Your task to perform on an android device: turn notification dots on Image 0: 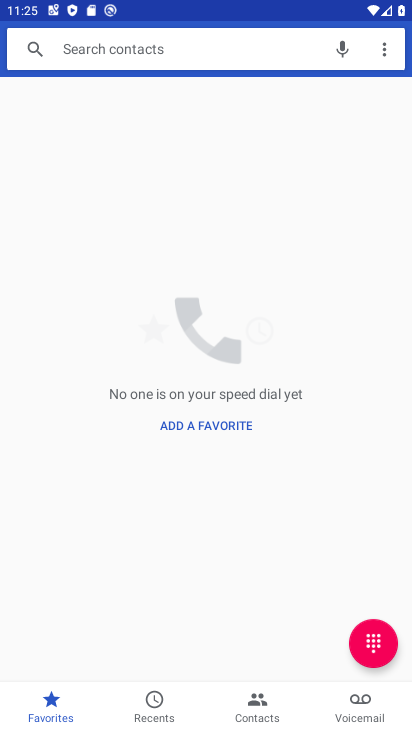
Step 0: press home button
Your task to perform on an android device: turn notification dots on Image 1: 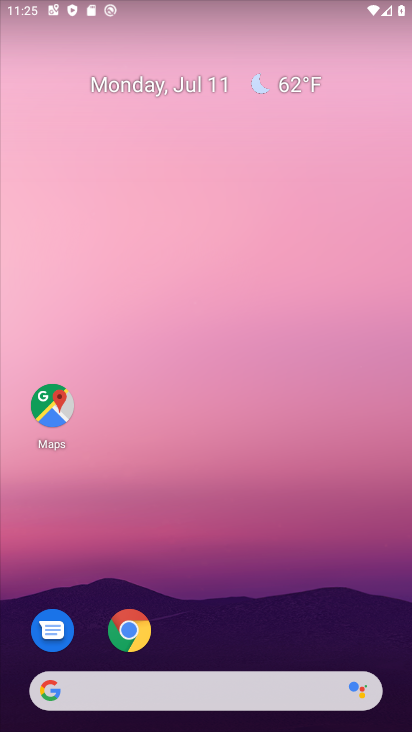
Step 1: drag from (224, 679) to (144, 27)
Your task to perform on an android device: turn notification dots on Image 2: 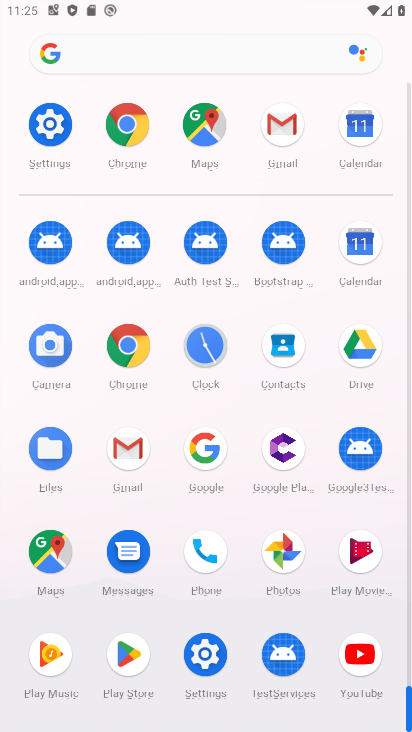
Step 2: click (54, 120)
Your task to perform on an android device: turn notification dots on Image 3: 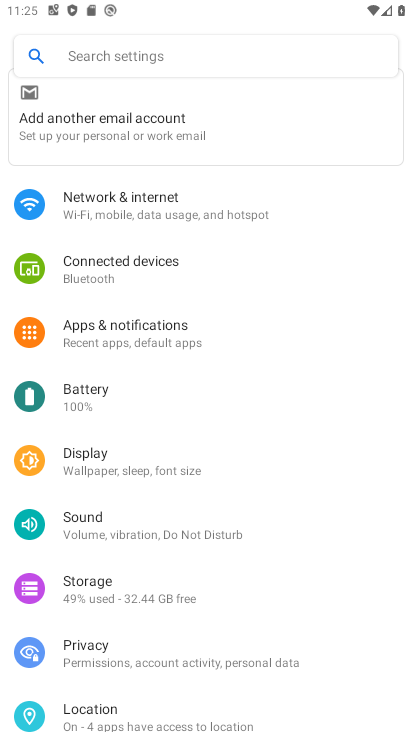
Step 3: click (143, 334)
Your task to perform on an android device: turn notification dots on Image 4: 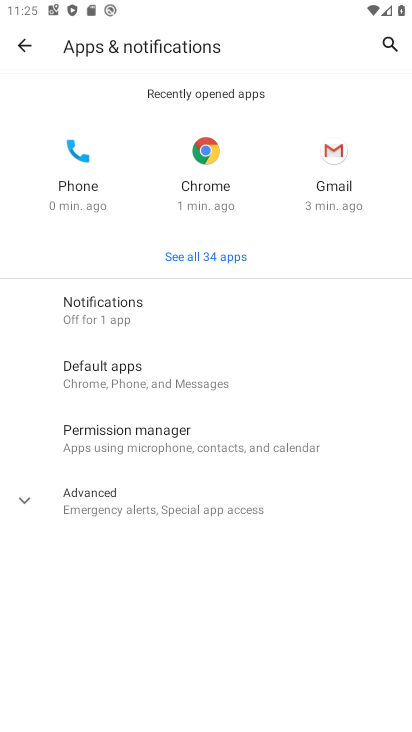
Step 4: click (132, 319)
Your task to perform on an android device: turn notification dots on Image 5: 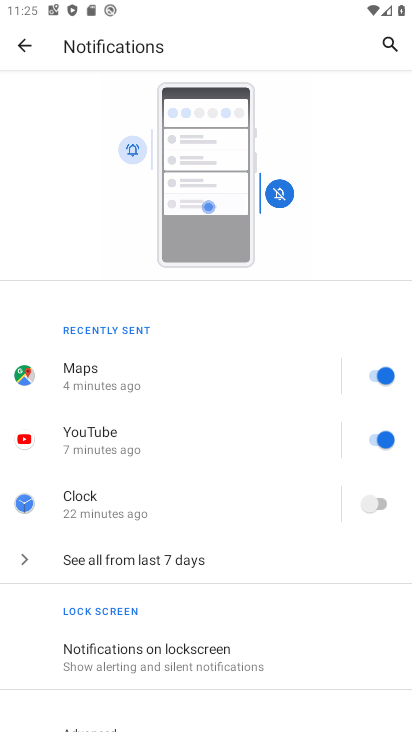
Step 5: drag from (170, 643) to (238, 140)
Your task to perform on an android device: turn notification dots on Image 6: 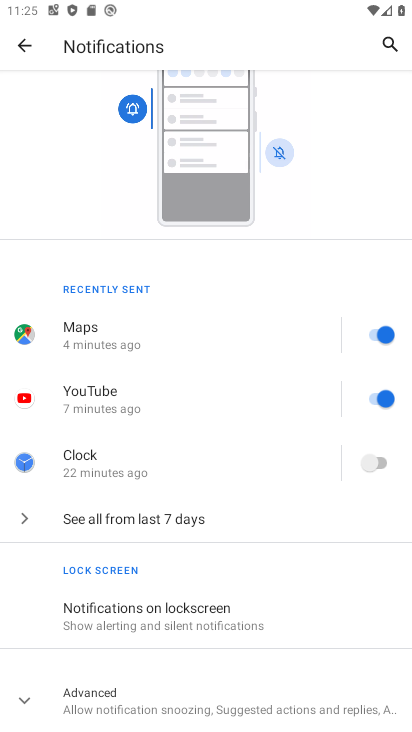
Step 6: click (160, 709)
Your task to perform on an android device: turn notification dots on Image 7: 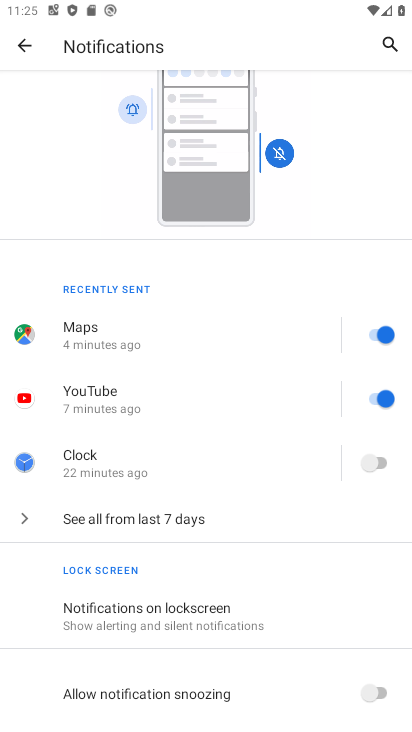
Step 7: drag from (159, 701) to (276, 207)
Your task to perform on an android device: turn notification dots on Image 8: 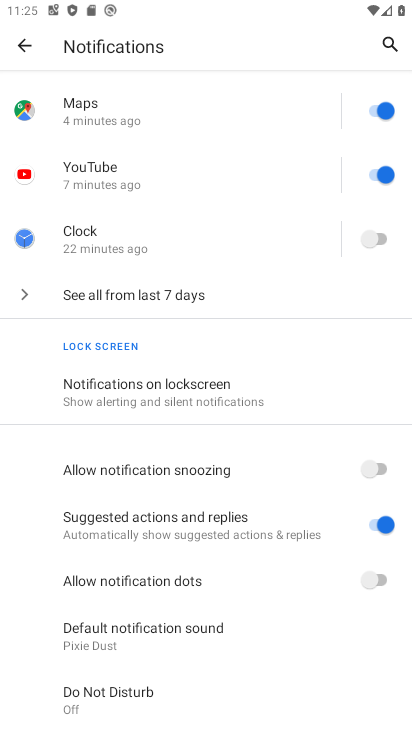
Step 8: click (379, 574)
Your task to perform on an android device: turn notification dots on Image 9: 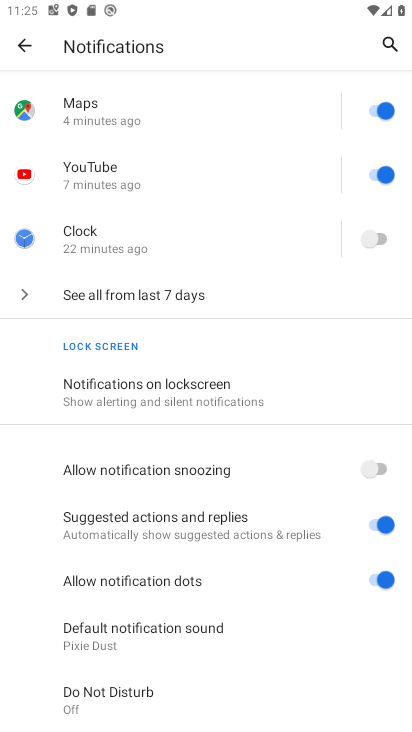
Step 9: task complete